Your task to perform on an android device: set default search engine in the chrome app Image 0: 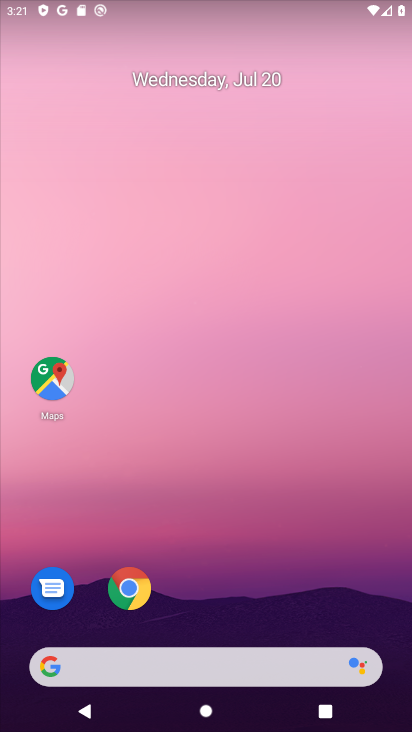
Step 0: click (138, 609)
Your task to perform on an android device: set default search engine in the chrome app Image 1: 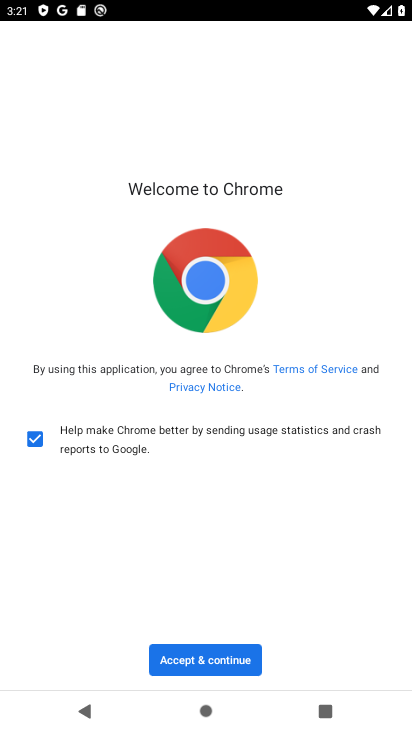
Step 1: click (196, 652)
Your task to perform on an android device: set default search engine in the chrome app Image 2: 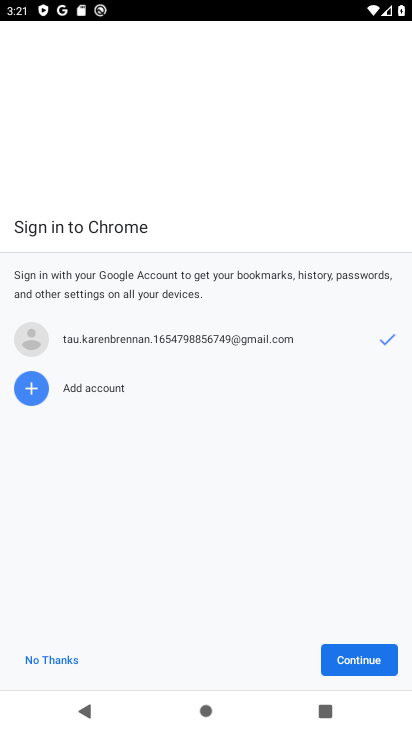
Step 2: click (365, 649)
Your task to perform on an android device: set default search engine in the chrome app Image 3: 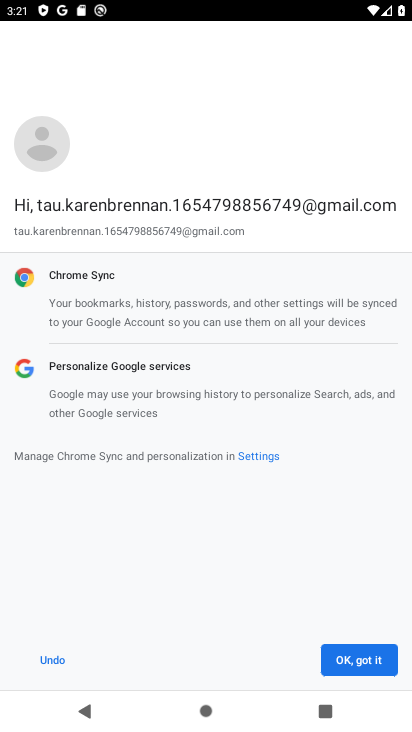
Step 3: click (357, 669)
Your task to perform on an android device: set default search engine in the chrome app Image 4: 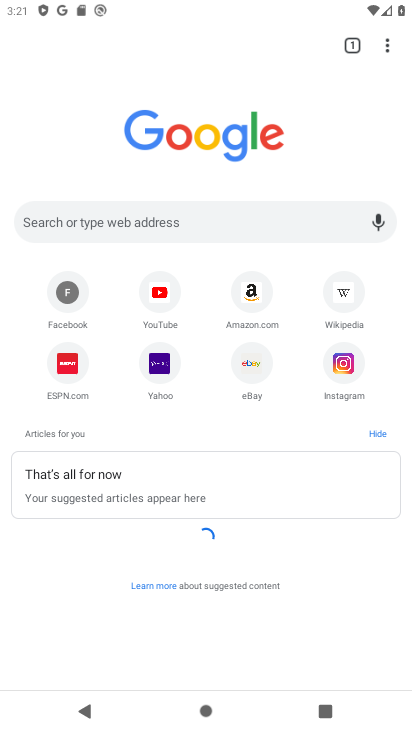
Step 4: click (391, 40)
Your task to perform on an android device: set default search engine in the chrome app Image 5: 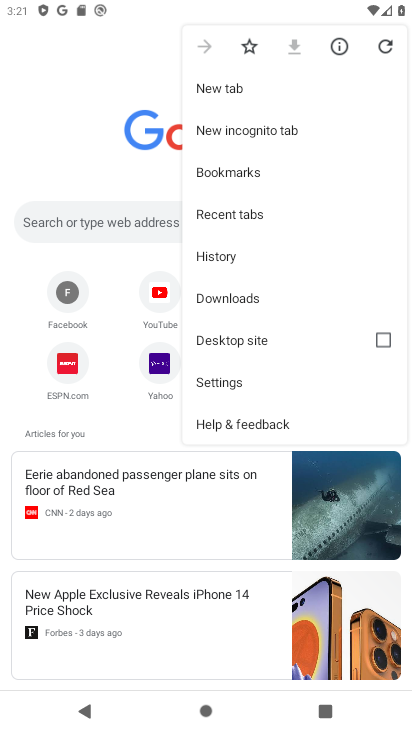
Step 5: click (252, 386)
Your task to perform on an android device: set default search engine in the chrome app Image 6: 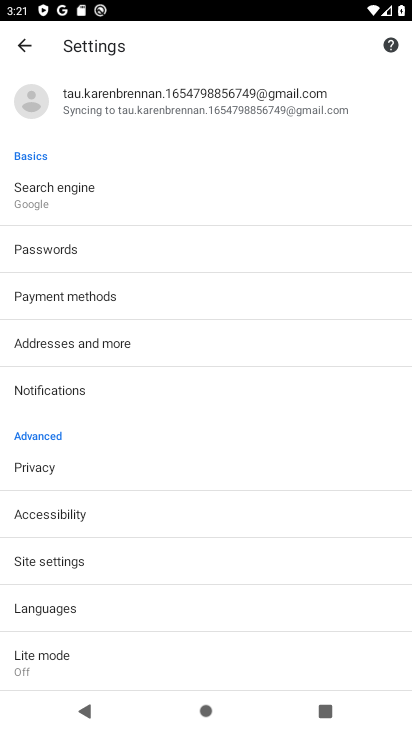
Step 6: click (64, 180)
Your task to perform on an android device: set default search engine in the chrome app Image 7: 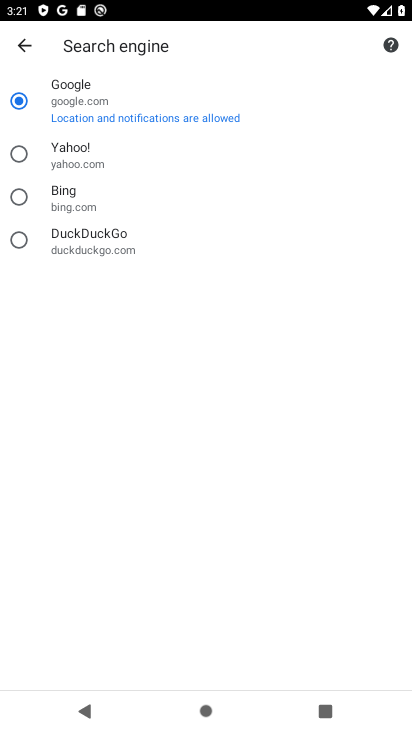
Step 7: click (64, 180)
Your task to perform on an android device: set default search engine in the chrome app Image 8: 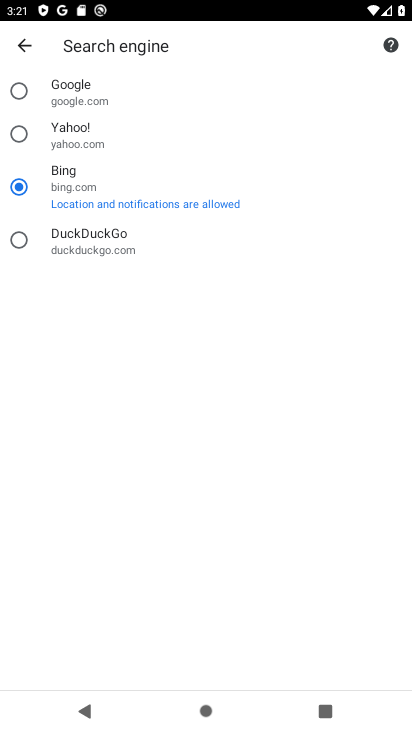
Step 8: task complete